Your task to perform on an android device: add a label to a message in the gmail app Image 0: 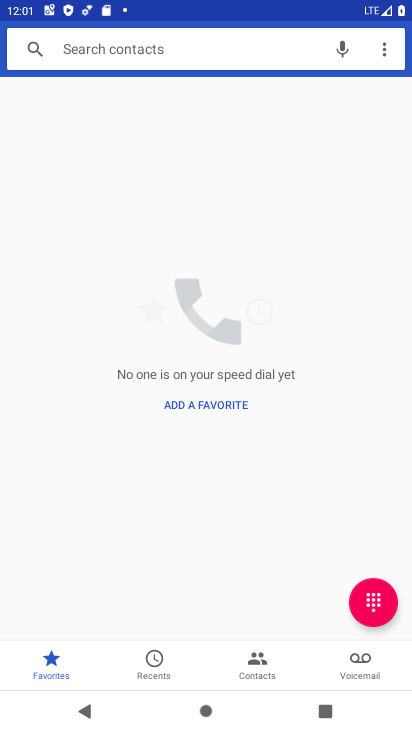
Step 0: press home button
Your task to perform on an android device: add a label to a message in the gmail app Image 1: 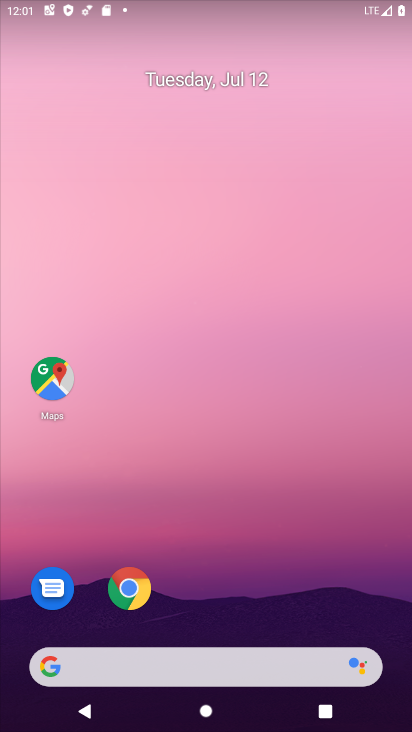
Step 1: drag from (286, 579) to (175, 138)
Your task to perform on an android device: add a label to a message in the gmail app Image 2: 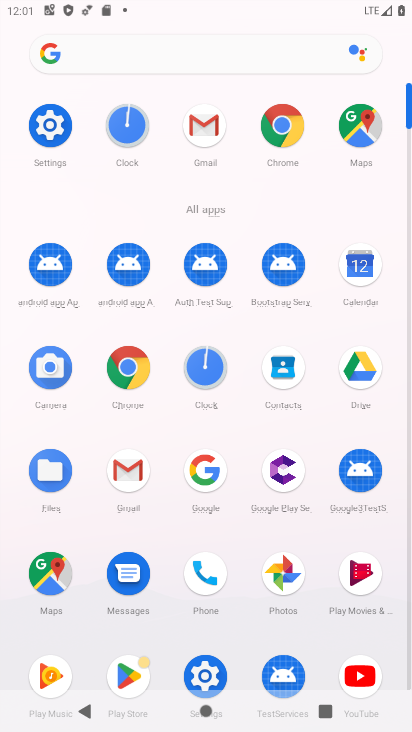
Step 2: click (199, 115)
Your task to perform on an android device: add a label to a message in the gmail app Image 3: 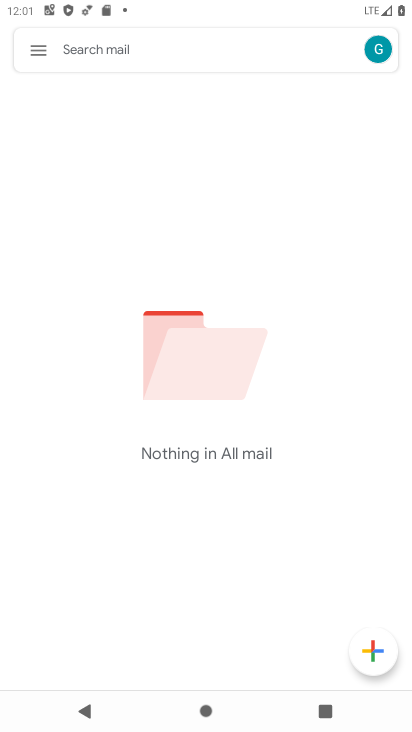
Step 3: task complete